Your task to perform on an android device: Go to ESPN.com Image 0: 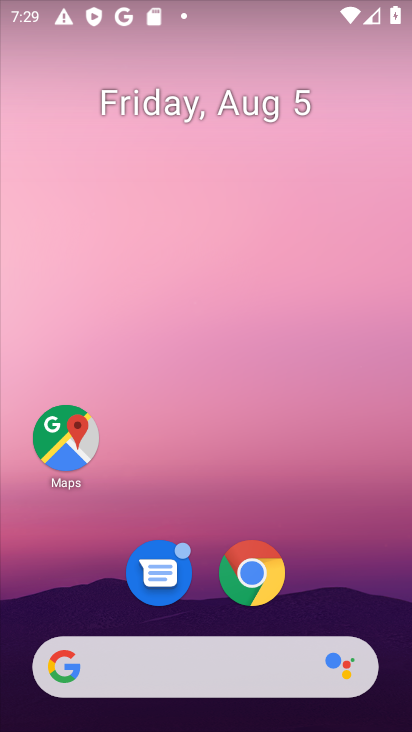
Step 0: click (227, 669)
Your task to perform on an android device: Go to ESPN.com Image 1: 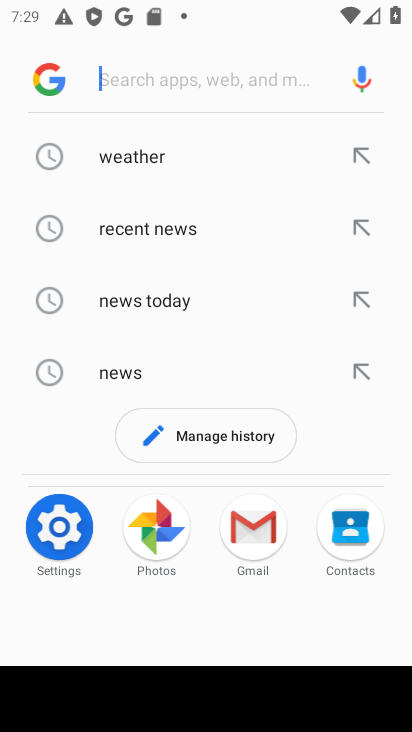
Step 1: type "espn.com"
Your task to perform on an android device: Go to ESPN.com Image 2: 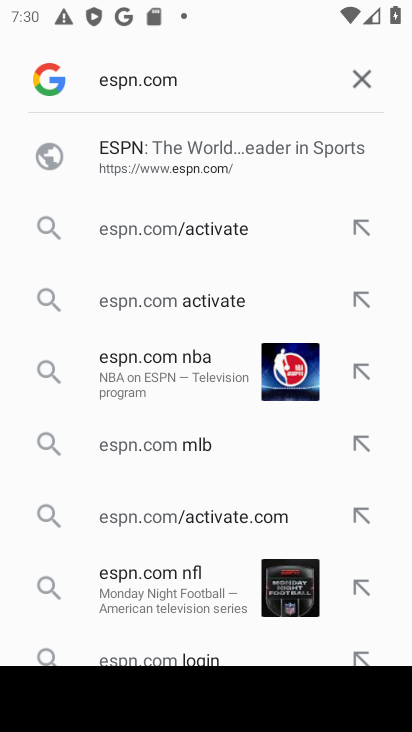
Step 2: click (224, 155)
Your task to perform on an android device: Go to ESPN.com Image 3: 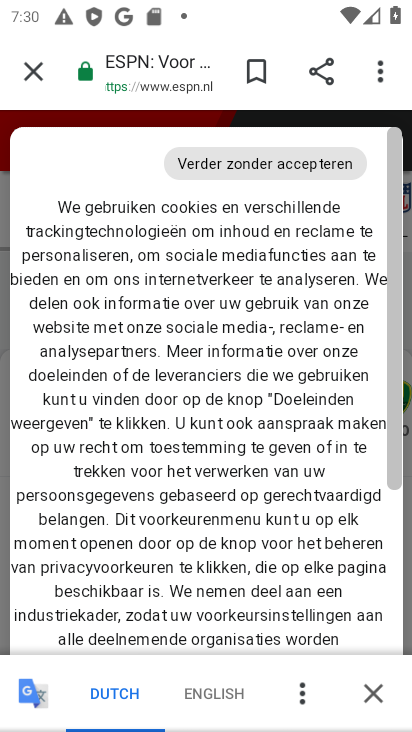
Step 3: click (216, 702)
Your task to perform on an android device: Go to ESPN.com Image 4: 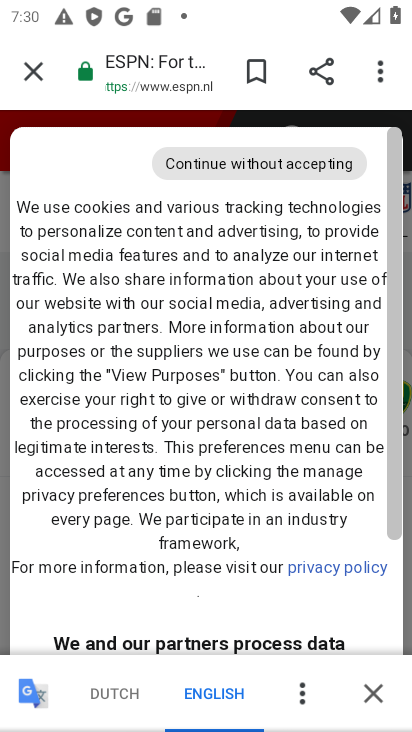
Step 4: click (310, 156)
Your task to perform on an android device: Go to ESPN.com Image 5: 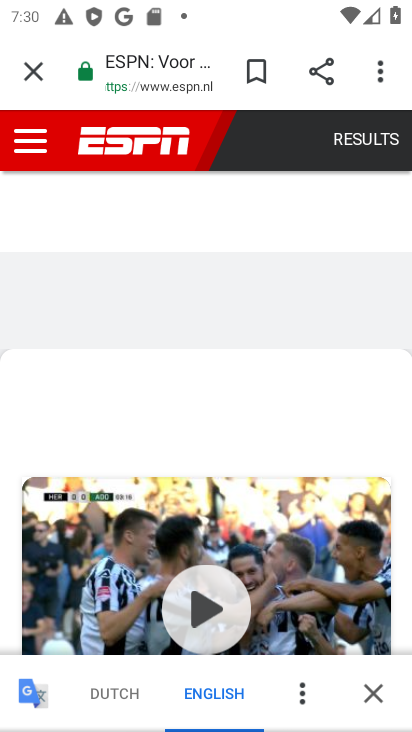
Step 5: task complete